Your task to perform on an android device: Go to calendar. Show me events next week Image 0: 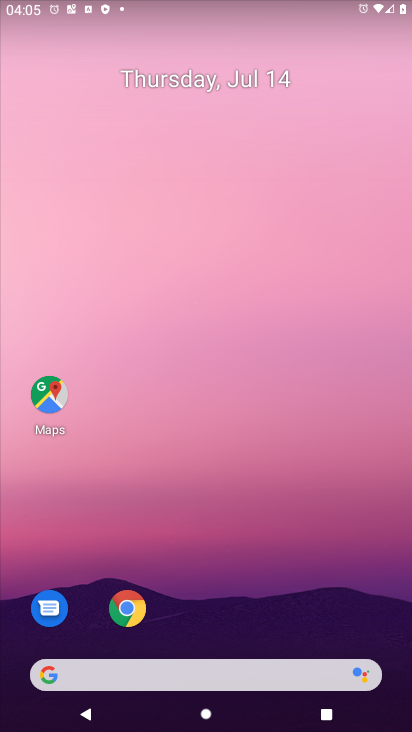
Step 0: drag from (383, 641) to (355, 286)
Your task to perform on an android device: Go to calendar. Show me events next week Image 1: 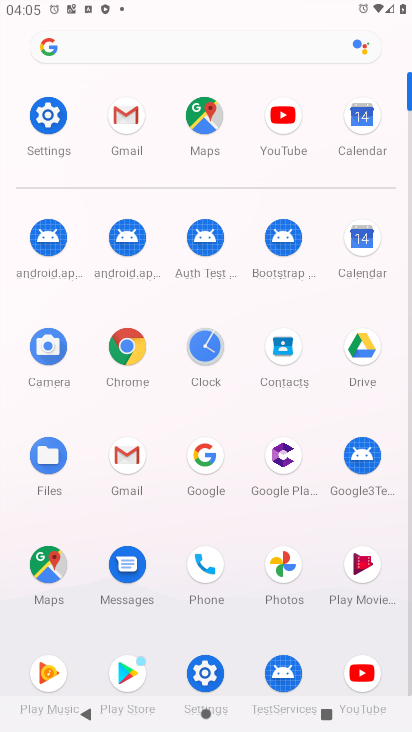
Step 1: click (358, 240)
Your task to perform on an android device: Go to calendar. Show me events next week Image 2: 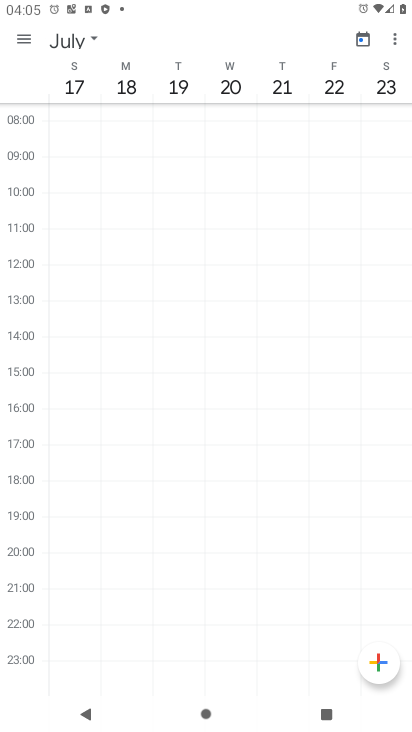
Step 2: task complete